Your task to perform on an android device: Open wifi settings Image 0: 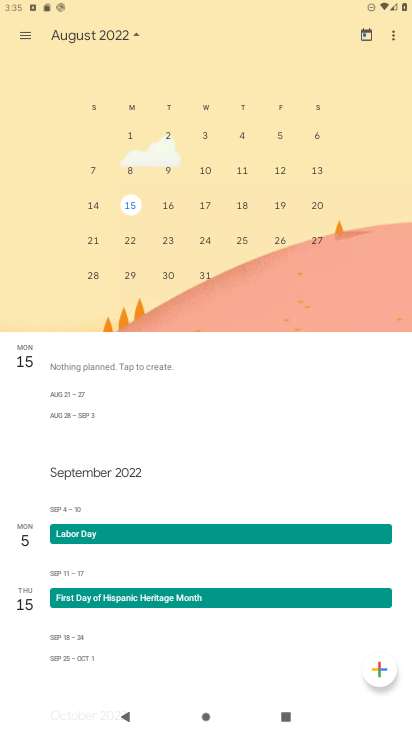
Step 0: drag from (158, 5) to (206, 640)
Your task to perform on an android device: Open wifi settings Image 1: 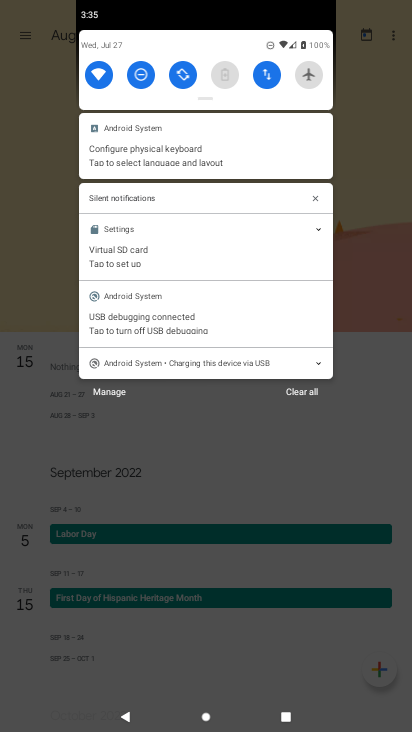
Step 1: click (103, 77)
Your task to perform on an android device: Open wifi settings Image 2: 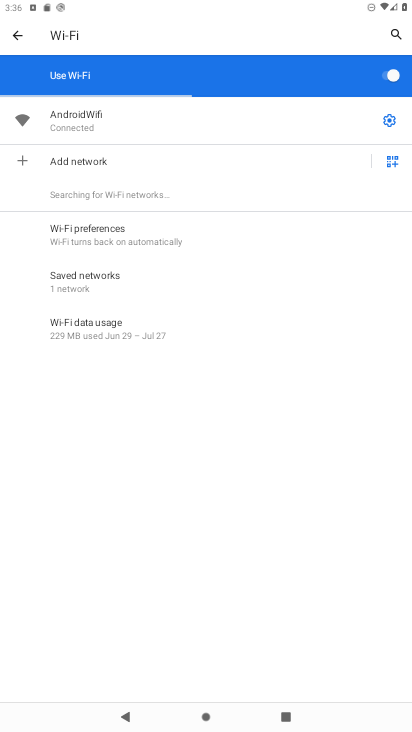
Step 2: task complete